Your task to perform on an android device: check android version Image 0: 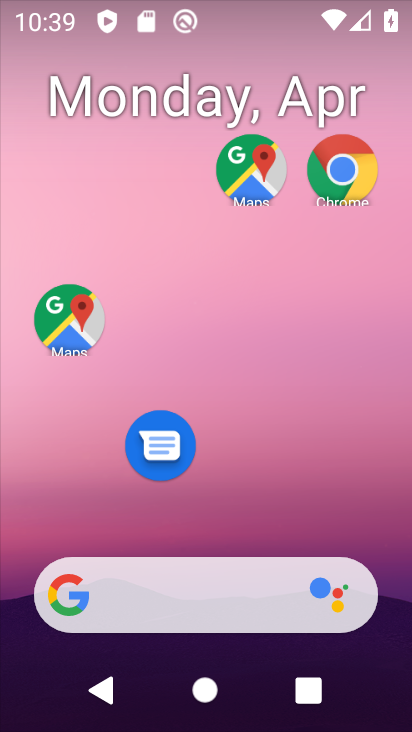
Step 0: drag from (277, 441) to (361, 1)
Your task to perform on an android device: check android version Image 1: 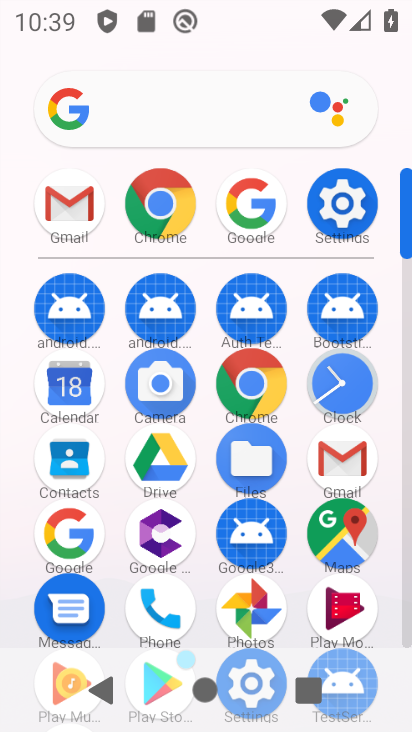
Step 1: click (340, 256)
Your task to perform on an android device: check android version Image 2: 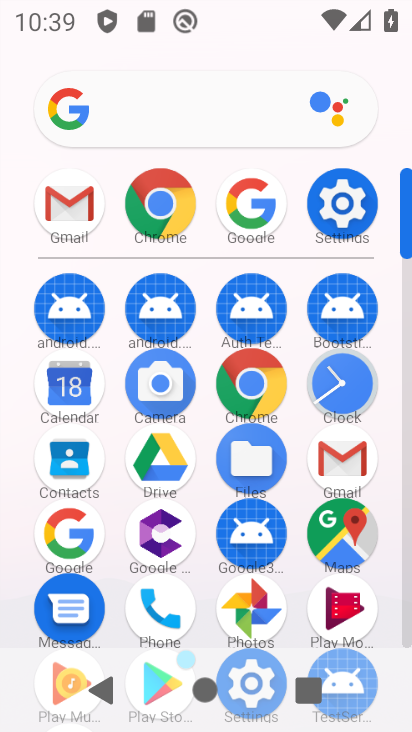
Step 2: click (347, 208)
Your task to perform on an android device: check android version Image 3: 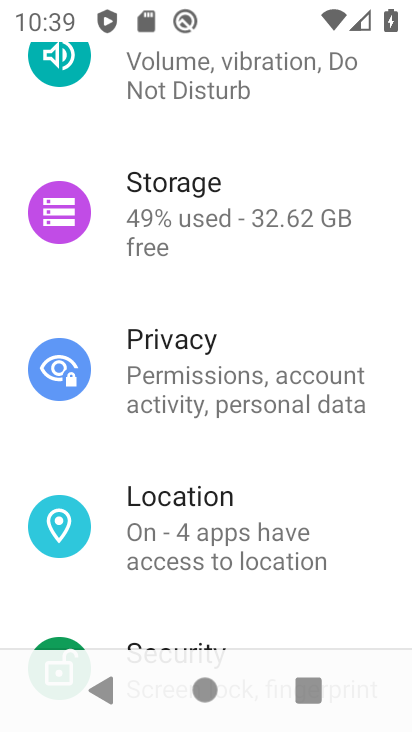
Step 3: drag from (329, 583) to (285, 124)
Your task to perform on an android device: check android version Image 4: 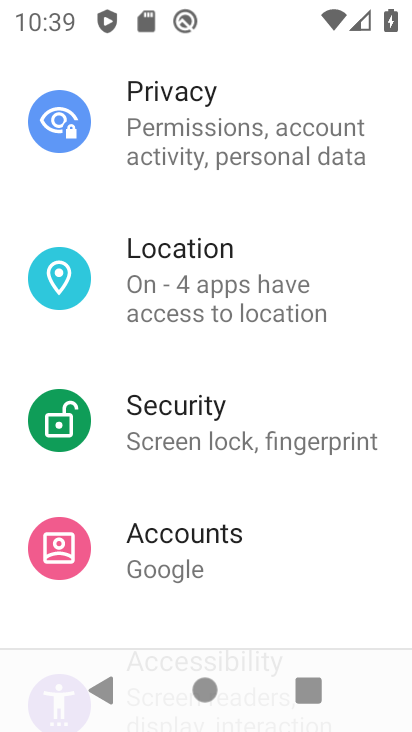
Step 4: drag from (284, 550) to (304, 42)
Your task to perform on an android device: check android version Image 5: 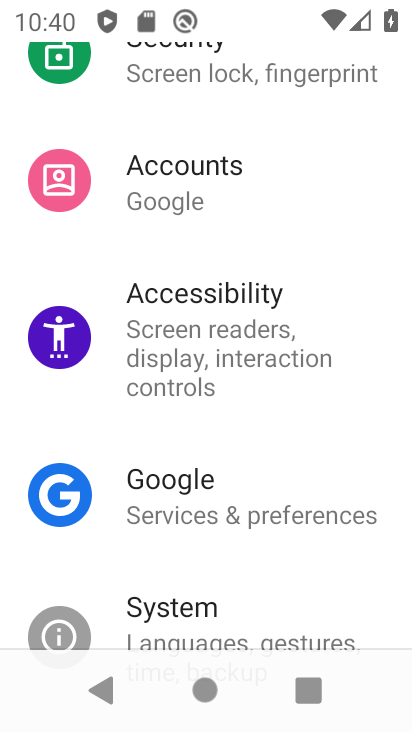
Step 5: drag from (279, 590) to (276, 123)
Your task to perform on an android device: check android version Image 6: 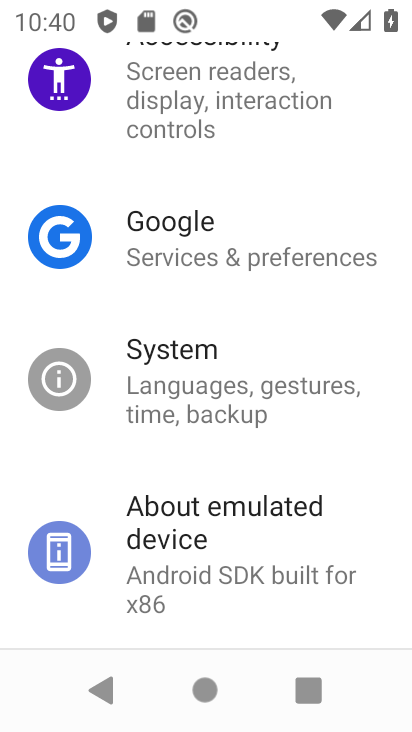
Step 6: click (221, 567)
Your task to perform on an android device: check android version Image 7: 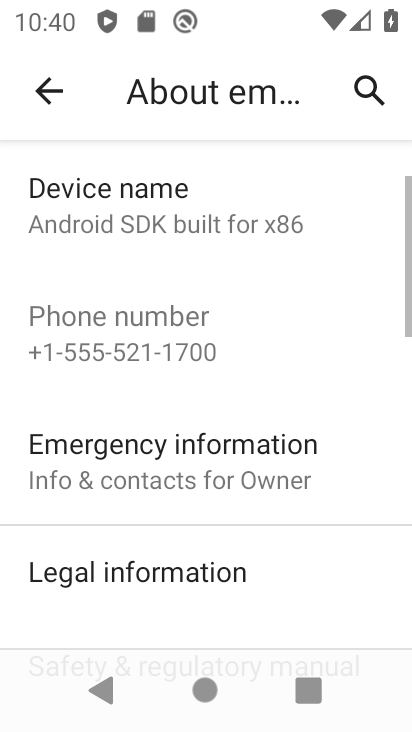
Step 7: drag from (305, 614) to (336, 109)
Your task to perform on an android device: check android version Image 8: 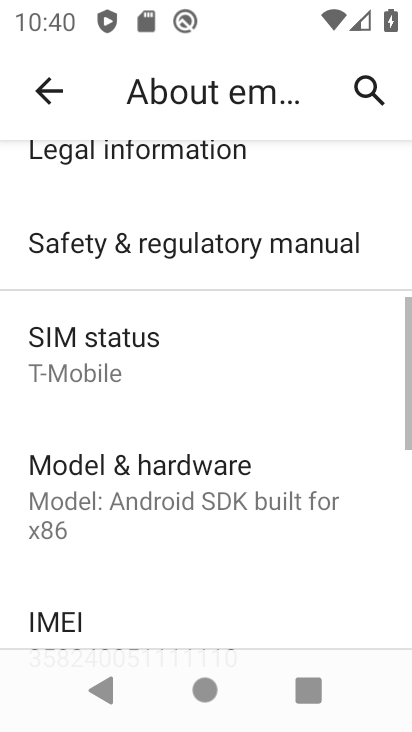
Step 8: drag from (169, 530) to (232, 131)
Your task to perform on an android device: check android version Image 9: 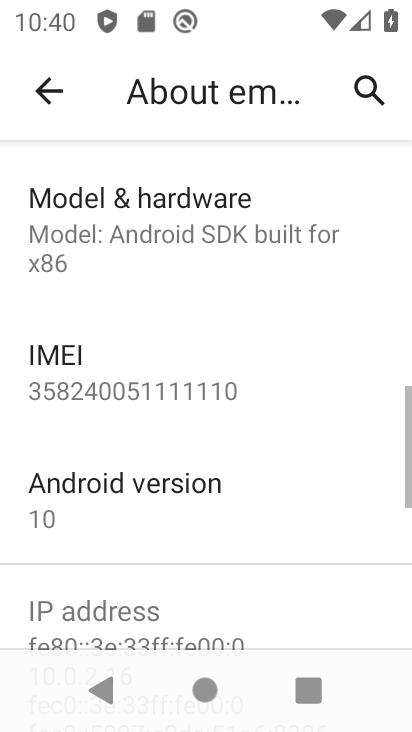
Step 9: click (163, 484)
Your task to perform on an android device: check android version Image 10: 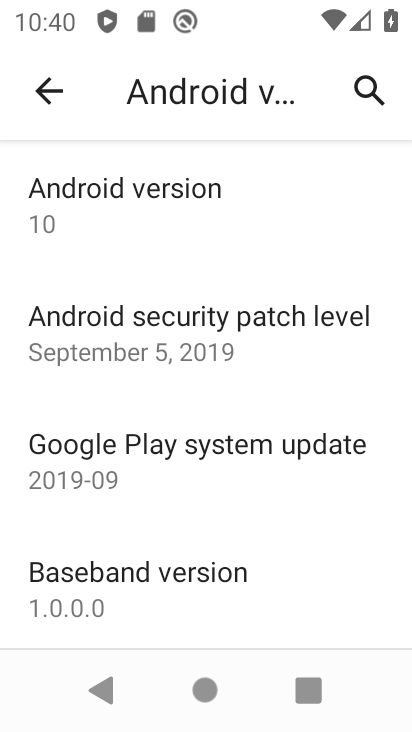
Step 10: task complete